Your task to perform on an android device: change notification settings in the gmail app Image 0: 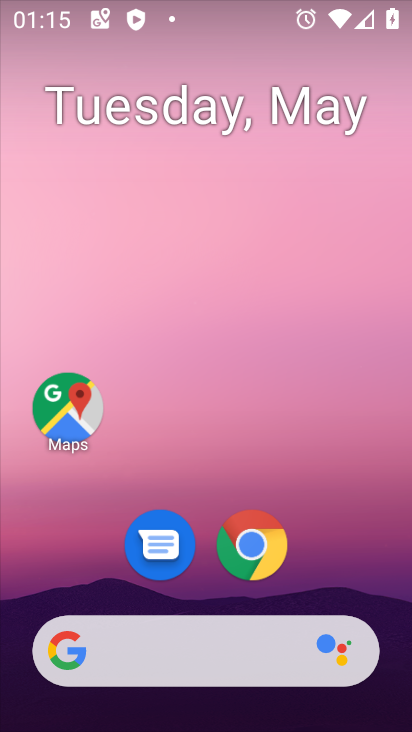
Step 0: drag from (319, 583) to (327, 19)
Your task to perform on an android device: change notification settings in the gmail app Image 1: 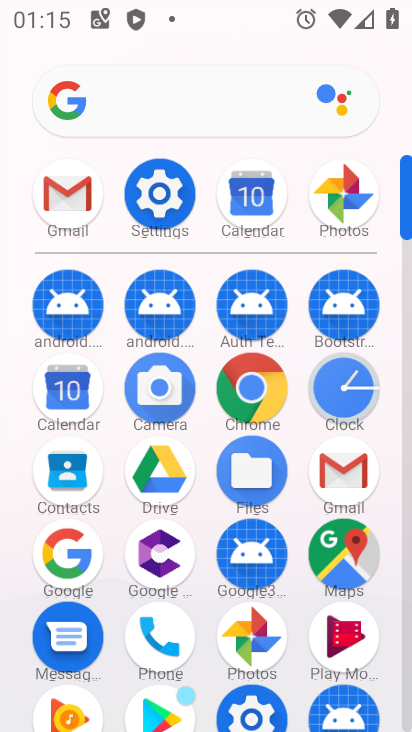
Step 1: click (350, 460)
Your task to perform on an android device: change notification settings in the gmail app Image 2: 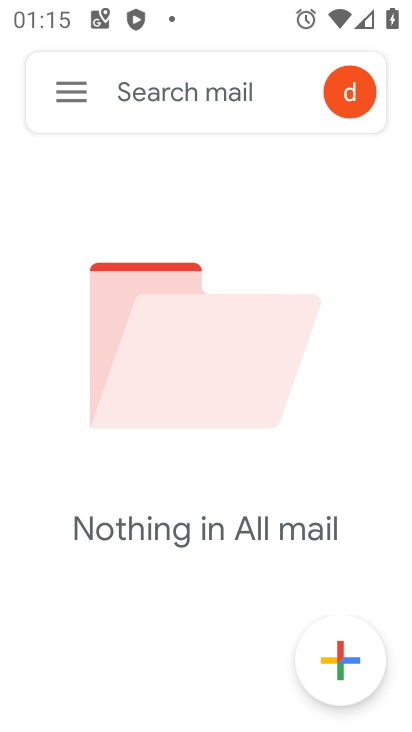
Step 2: click (75, 103)
Your task to perform on an android device: change notification settings in the gmail app Image 3: 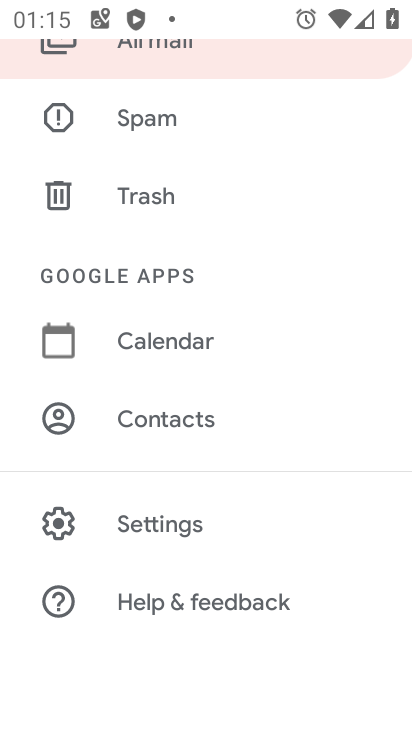
Step 3: click (175, 521)
Your task to perform on an android device: change notification settings in the gmail app Image 4: 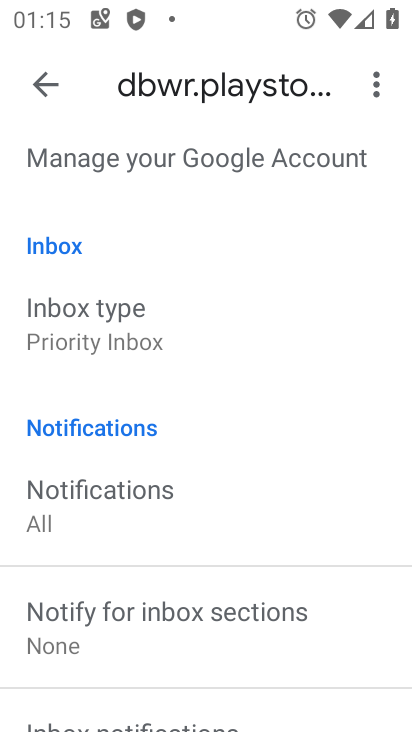
Step 4: drag from (119, 693) to (172, 311)
Your task to perform on an android device: change notification settings in the gmail app Image 5: 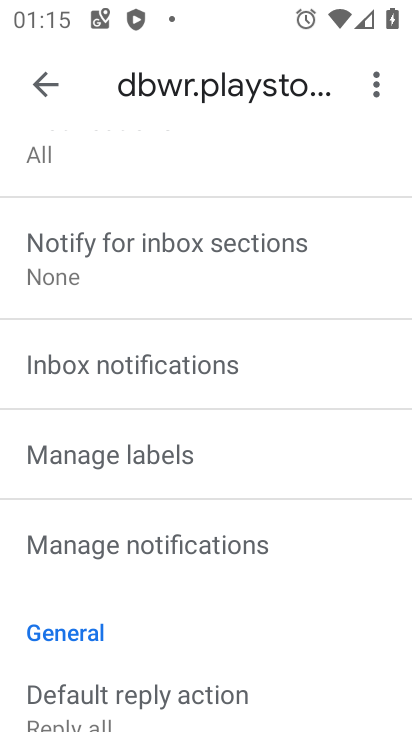
Step 5: click (143, 543)
Your task to perform on an android device: change notification settings in the gmail app Image 6: 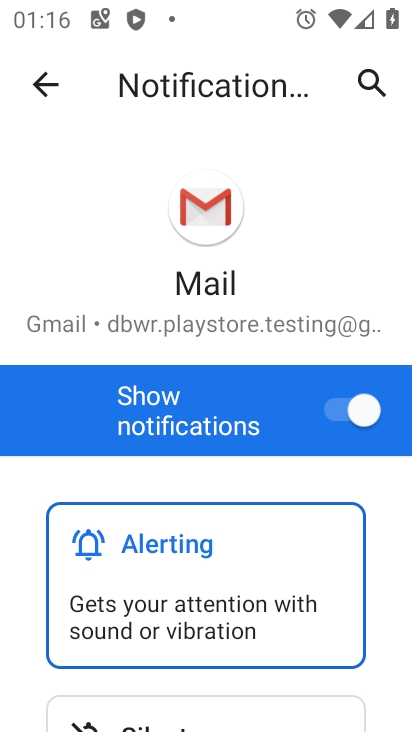
Step 6: click (325, 425)
Your task to perform on an android device: change notification settings in the gmail app Image 7: 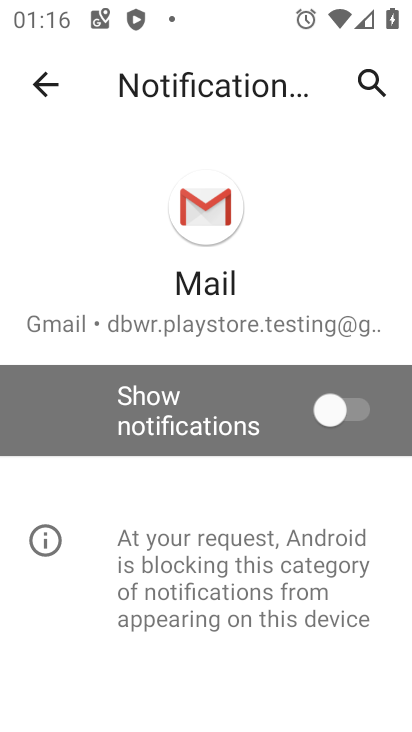
Step 7: task complete